Your task to perform on an android device: toggle notifications settings in the gmail app Image 0: 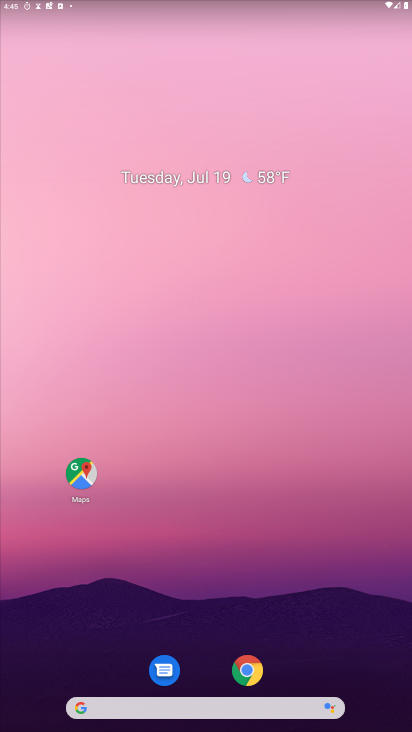
Step 0: drag from (292, 711) to (329, 9)
Your task to perform on an android device: toggle notifications settings in the gmail app Image 1: 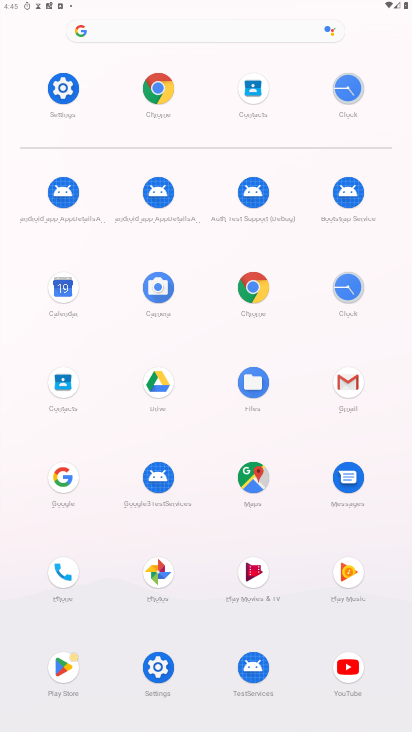
Step 1: click (342, 372)
Your task to perform on an android device: toggle notifications settings in the gmail app Image 2: 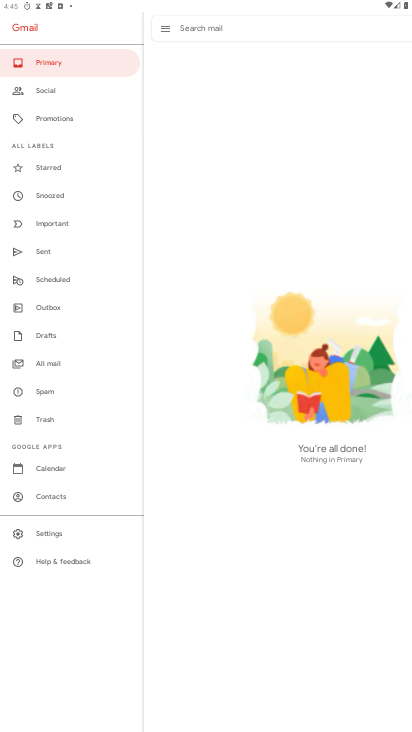
Step 2: click (56, 530)
Your task to perform on an android device: toggle notifications settings in the gmail app Image 3: 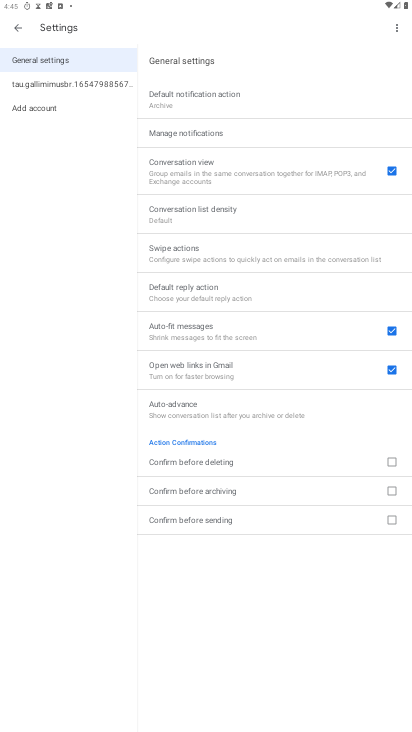
Step 3: click (180, 132)
Your task to perform on an android device: toggle notifications settings in the gmail app Image 4: 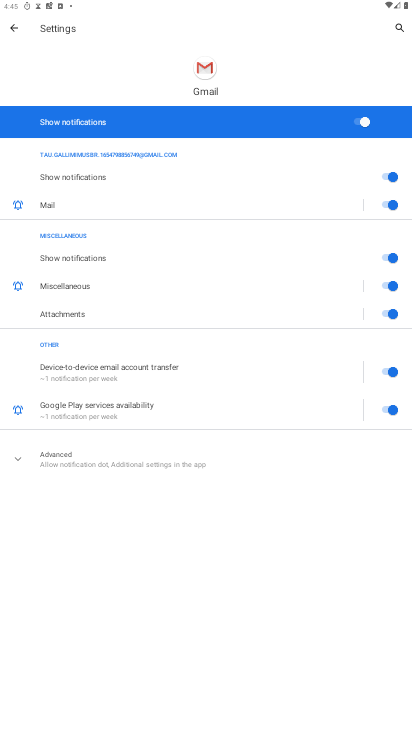
Step 4: click (371, 123)
Your task to perform on an android device: toggle notifications settings in the gmail app Image 5: 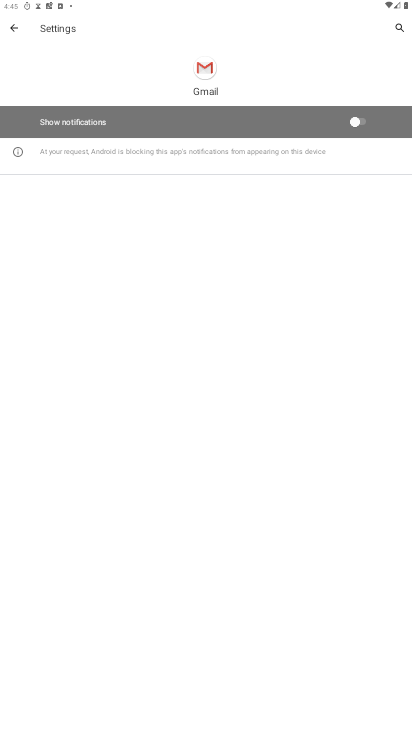
Step 5: task complete